Your task to perform on an android device: turn on the 24-hour format for clock Image 0: 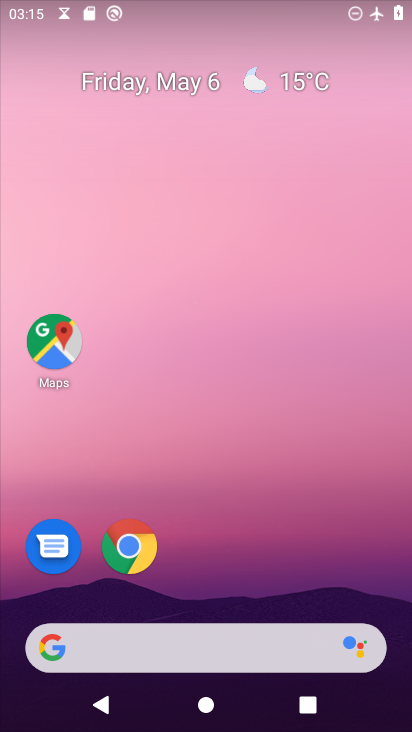
Step 0: drag from (296, 587) to (312, 231)
Your task to perform on an android device: turn on the 24-hour format for clock Image 1: 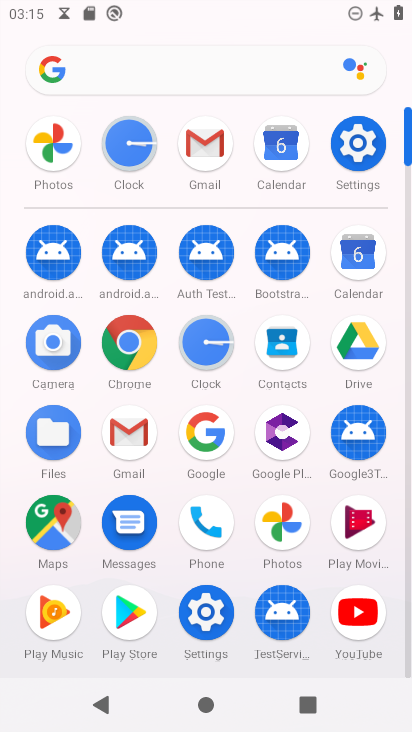
Step 1: click (214, 333)
Your task to perform on an android device: turn on the 24-hour format for clock Image 2: 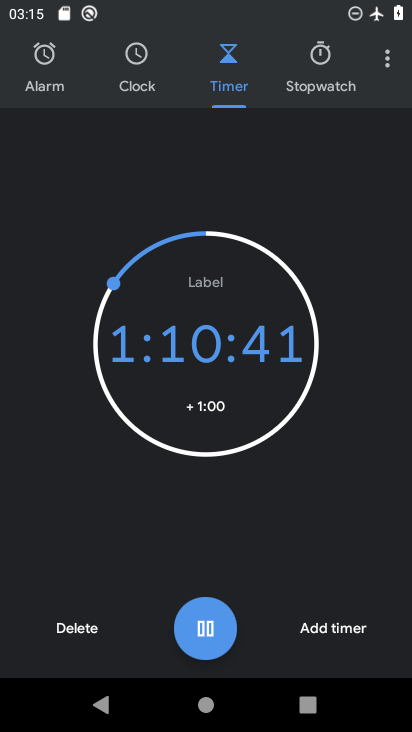
Step 2: click (390, 63)
Your task to perform on an android device: turn on the 24-hour format for clock Image 3: 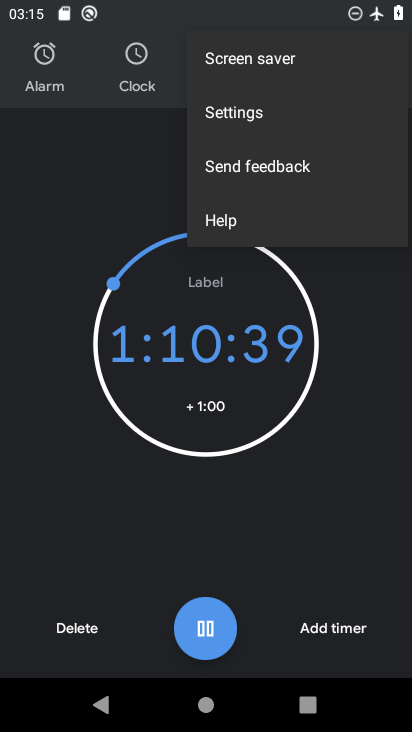
Step 3: click (259, 120)
Your task to perform on an android device: turn on the 24-hour format for clock Image 4: 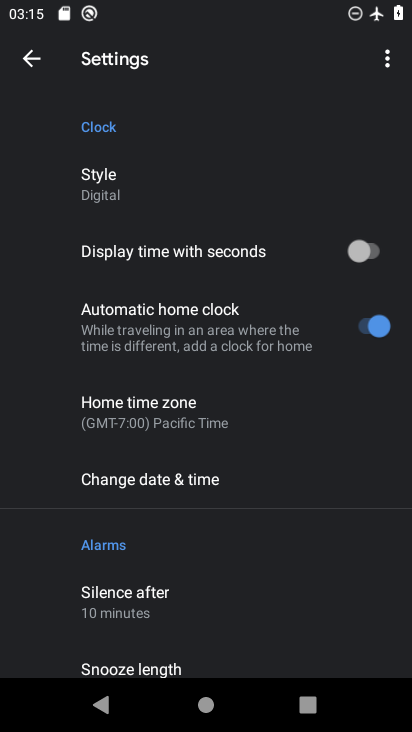
Step 4: click (207, 484)
Your task to perform on an android device: turn on the 24-hour format for clock Image 5: 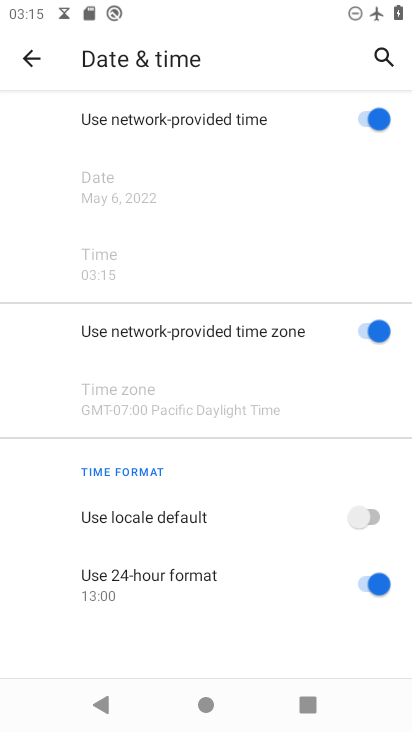
Step 5: task complete